Your task to perform on an android device: Show me popular games on the Play Store Image 0: 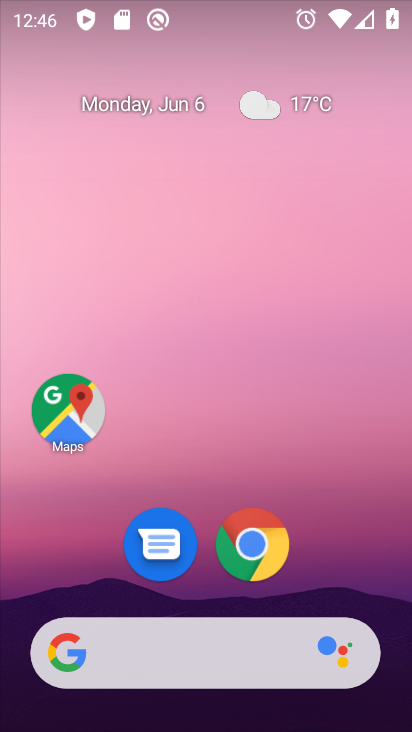
Step 0: drag from (325, 591) to (307, 213)
Your task to perform on an android device: Show me popular games on the Play Store Image 1: 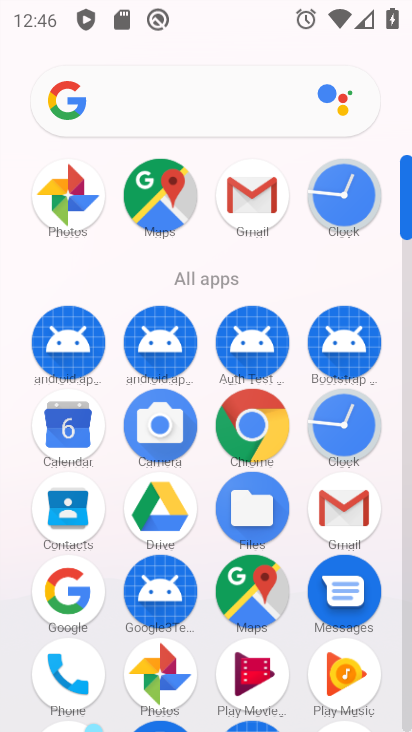
Step 1: click (407, 720)
Your task to perform on an android device: Show me popular games on the Play Store Image 2: 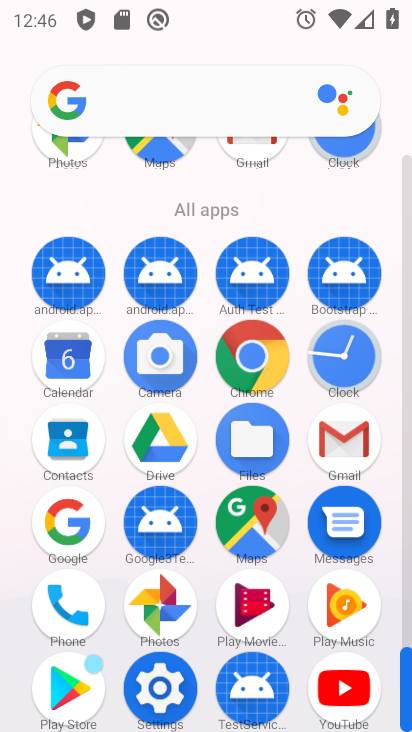
Step 2: click (66, 697)
Your task to perform on an android device: Show me popular games on the Play Store Image 3: 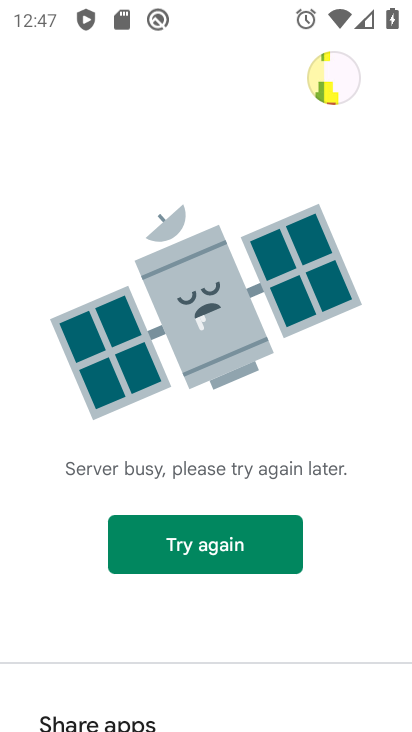
Step 3: task complete